Your task to perform on an android device: turn off data saver in the chrome app Image 0: 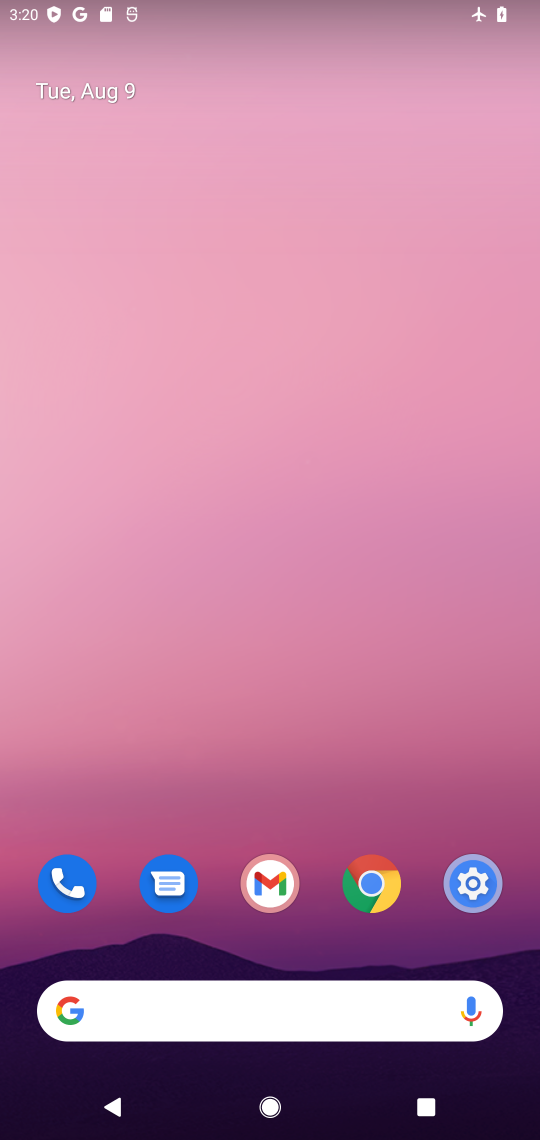
Step 0: click (376, 881)
Your task to perform on an android device: turn off data saver in the chrome app Image 1: 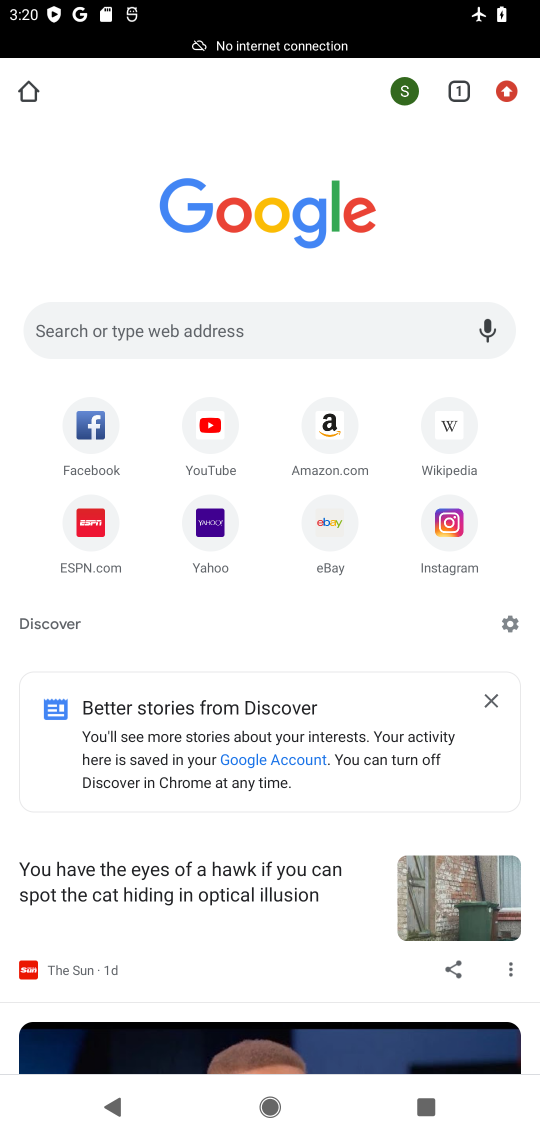
Step 1: click (504, 92)
Your task to perform on an android device: turn off data saver in the chrome app Image 2: 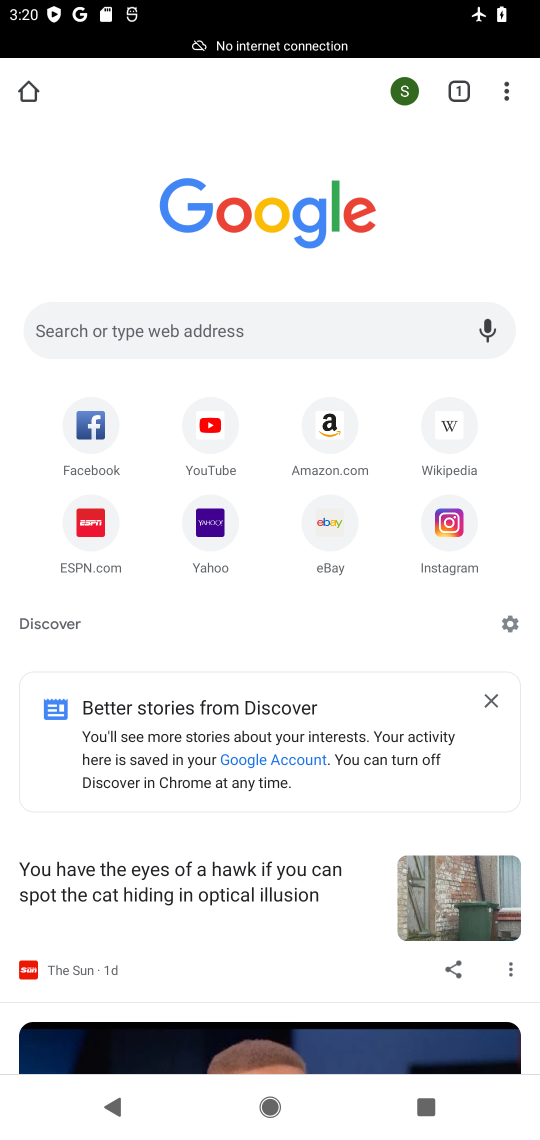
Step 2: click (505, 99)
Your task to perform on an android device: turn off data saver in the chrome app Image 3: 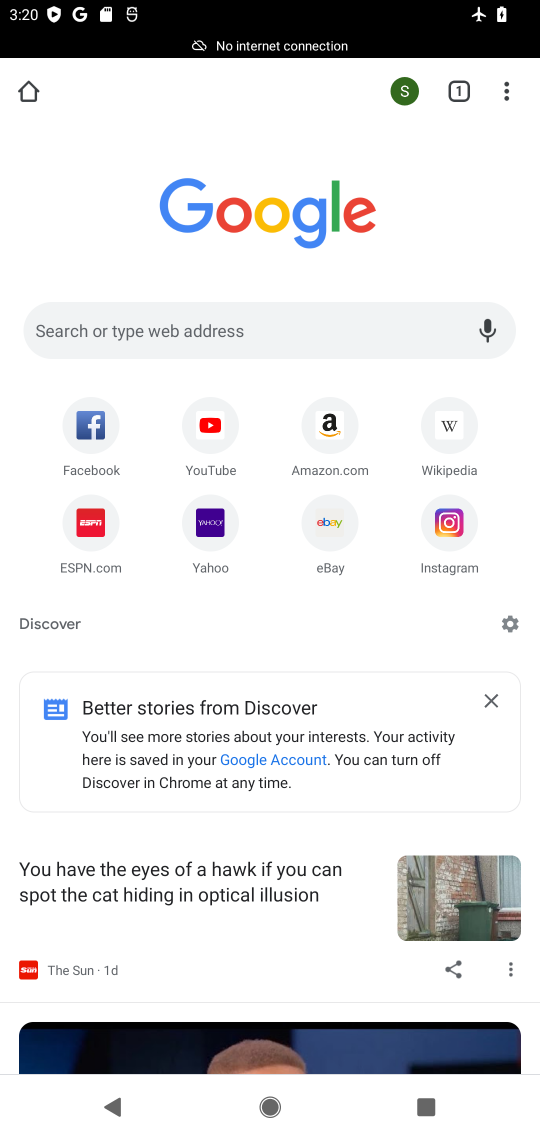
Step 3: click (499, 101)
Your task to perform on an android device: turn off data saver in the chrome app Image 4: 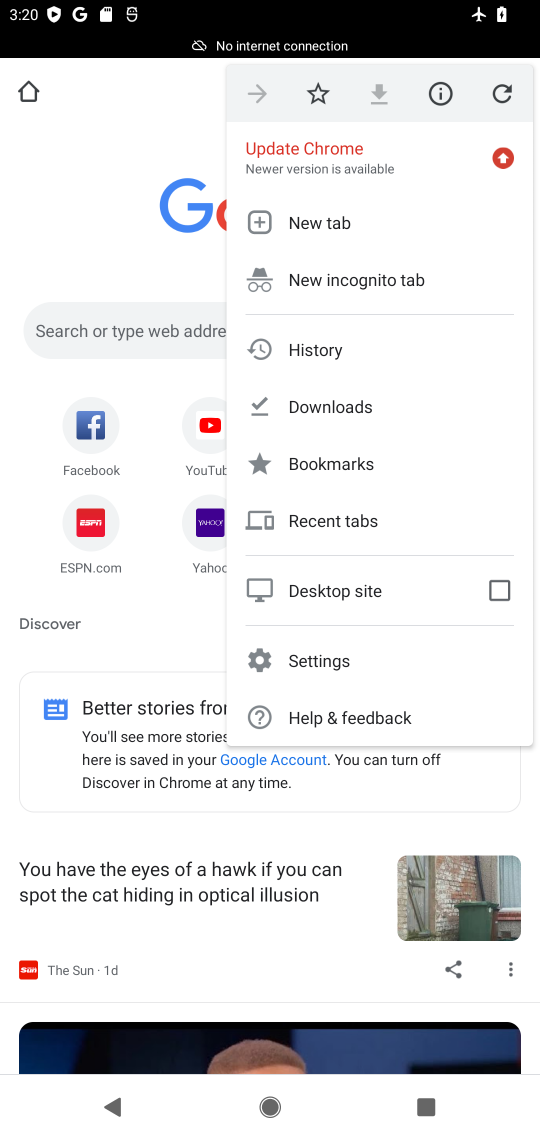
Step 4: click (307, 654)
Your task to perform on an android device: turn off data saver in the chrome app Image 5: 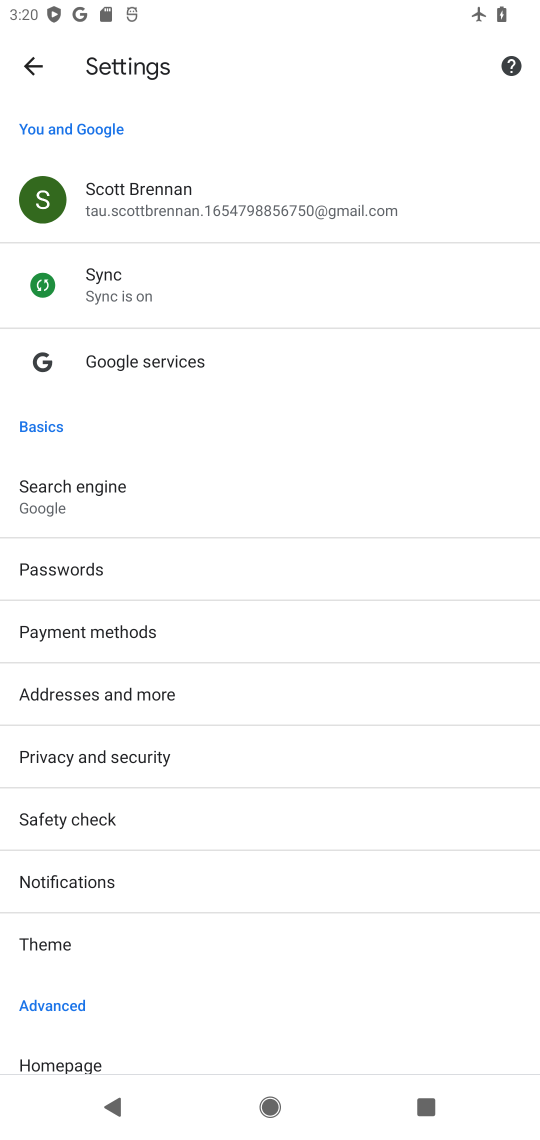
Step 5: drag from (264, 937) to (274, 230)
Your task to perform on an android device: turn off data saver in the chrome app Image 6: 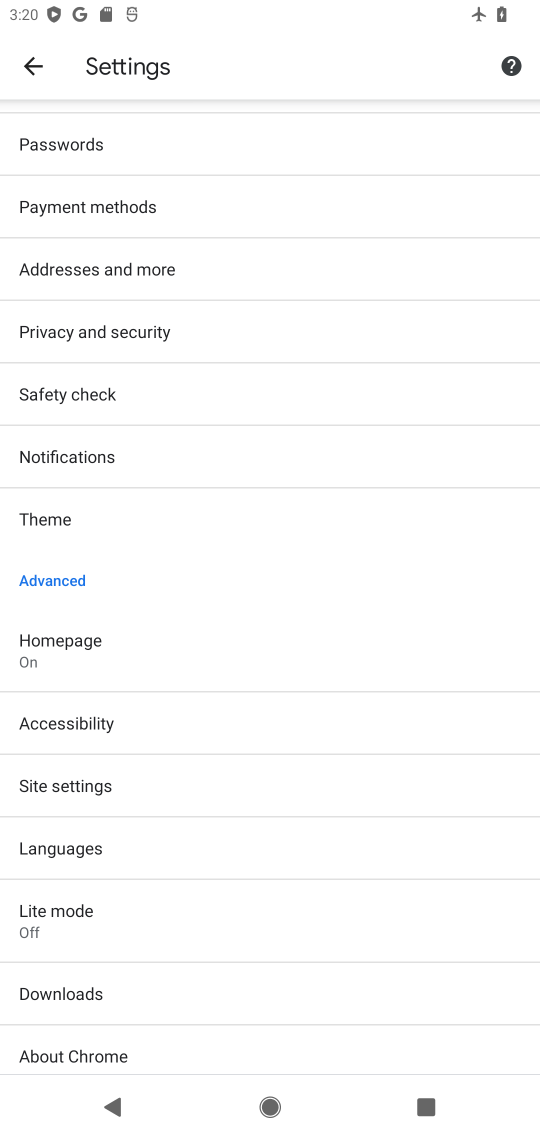
Step 6: click (31, 925)
Your task to perform on an android device: turn off data saver in the chrome app Image 7: 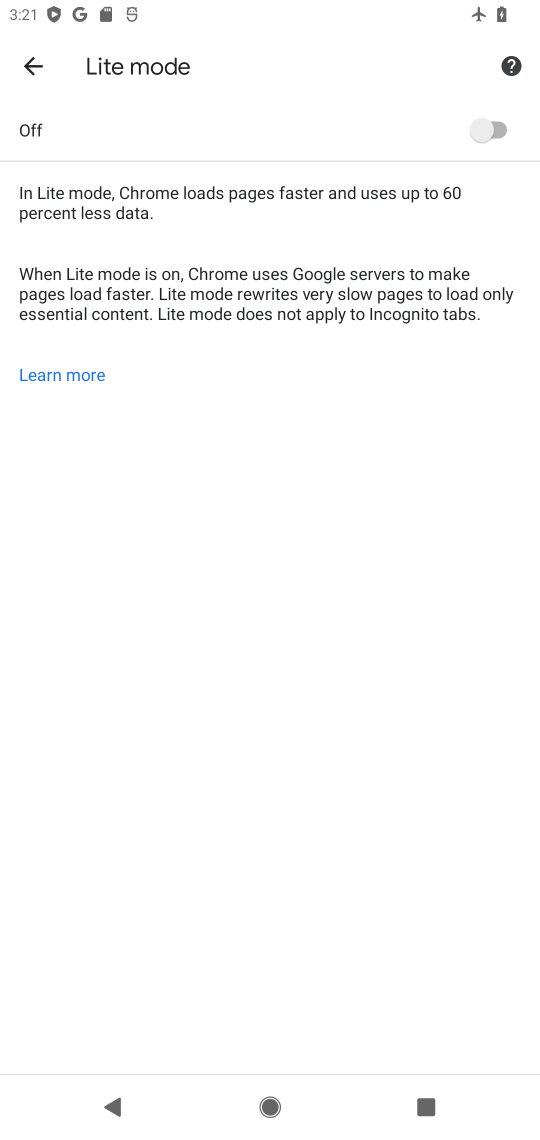
Step 7: task complete